Your task to perform on an android device: read, delete, or share a saved page in the chrome app Image 0: 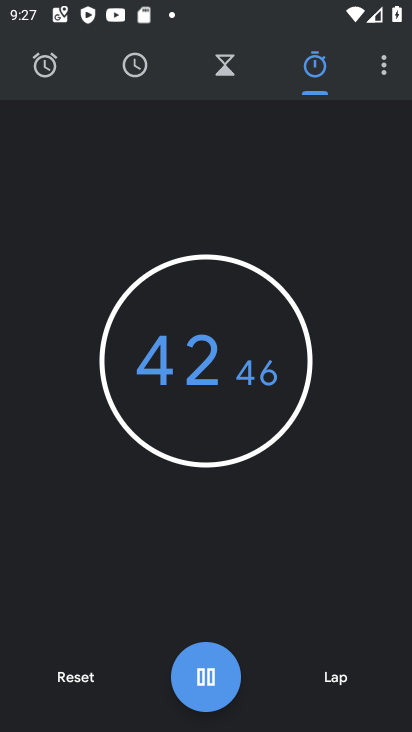
Step 0: press home button
Your task to perform on an android device: read, delete, or share a saved page in the chrome app Image 1: 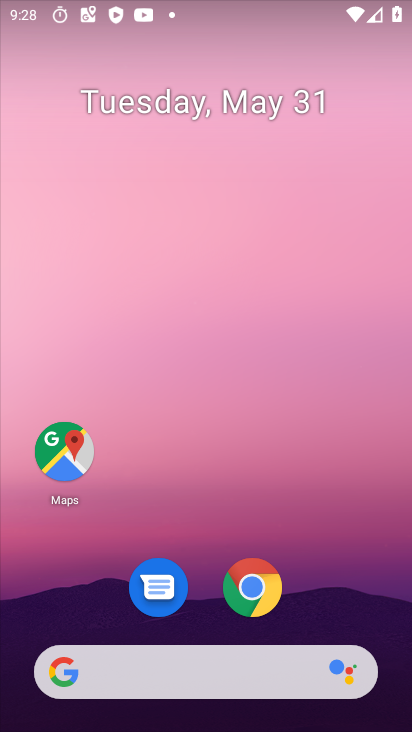
Step 1: click (249, 579)
Your task to perform on an android device: read, delete, or share a saved page in the chrome app Image 2: 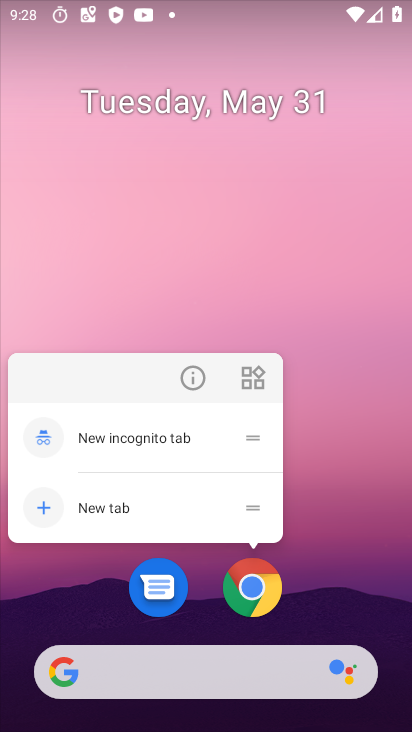
Step 2: click (330, 529)
Your task to perform on an android device: read, delete, or share a saved page in the chrome app Image 3: 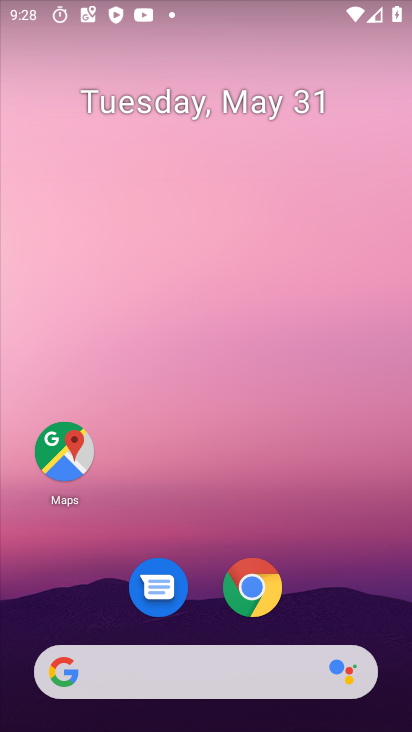
Step 3: drag from (329, 593) to (286, 82)
Your task to perform on an android device: read, delete, or share a saved page in the chrome app Image 4: 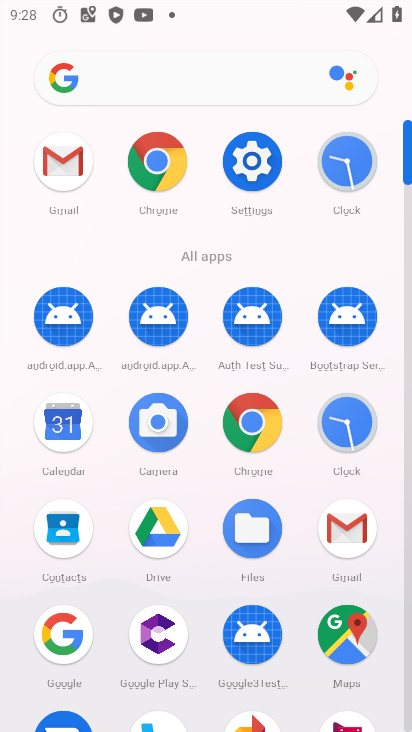
Step 4: click (254, 415)
Your task to perform on an android device: read, delete, or share a saved page in the chrome app Image 5: 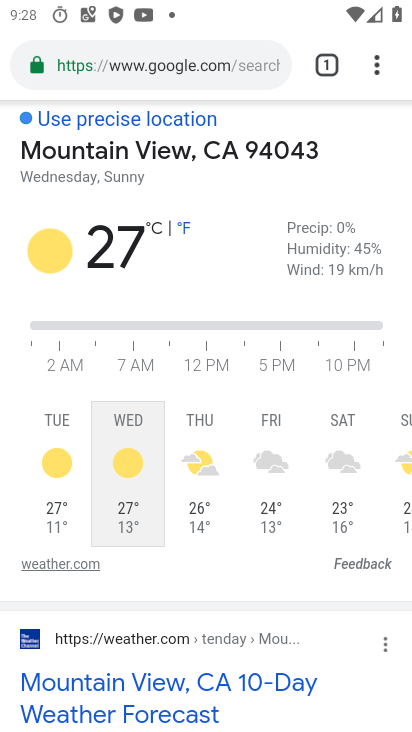
Step 5: drag from (373, 57) to (119, 132)
Your task to perform on an android device: read, delete, or share a saved page in the chrome app Image 6: 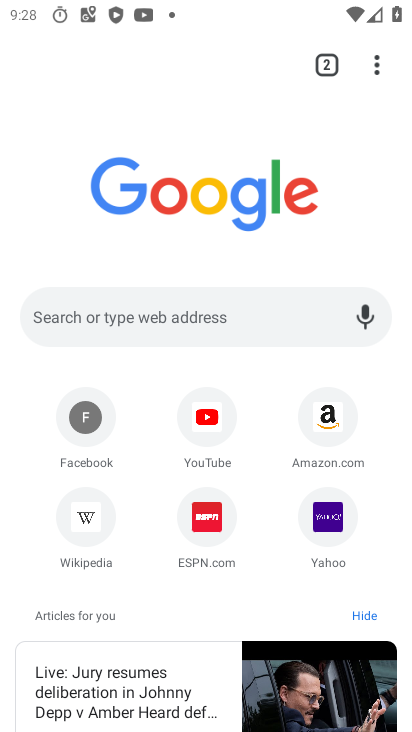
Step 6: click (87, 519)
Your task to perform on an android device: read, delete, or share a saved page in the chrome app Image 7: 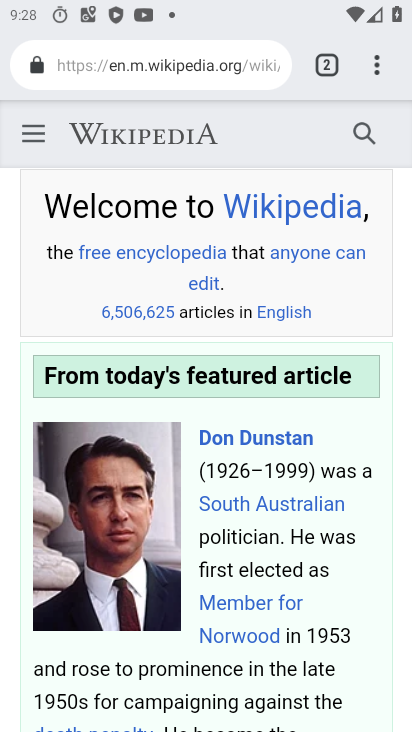
Step 7: drag from (182, 612) to (198, 260)
Your task to perform on an android device: read, delete, or share a saved page in the chrome app Image 8: 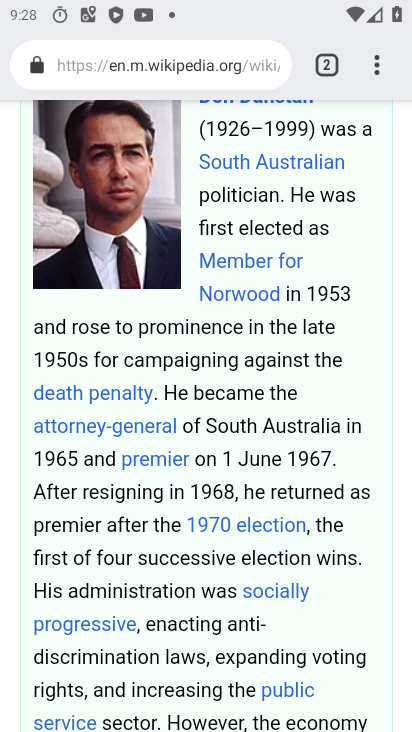
Step 8: drag from (371, 65) to (173, 68)
Your task to perform on an android device: read, delete, or share a saved page in the chrome app Image 9: 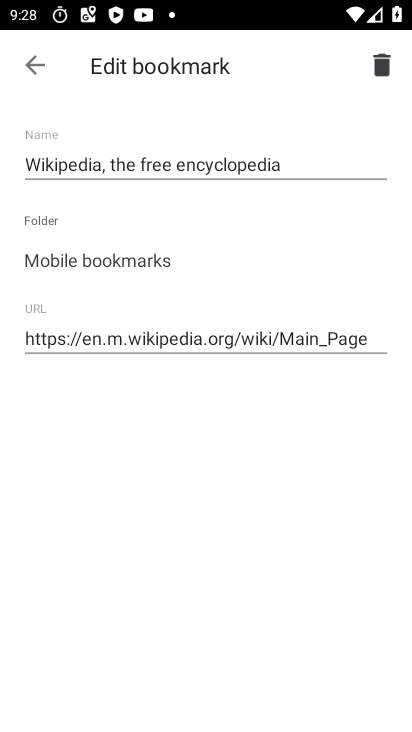
Step 9: click (379, 52)
Your task to perform on an android device: read, delete, or share a saved page in the chrome app Image 10: 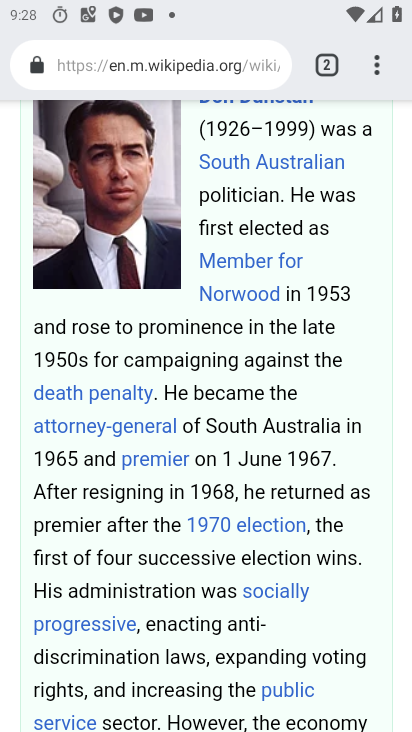
Step 10: task complete